Your task to perform on an android device: Go to Amazon Image 0: 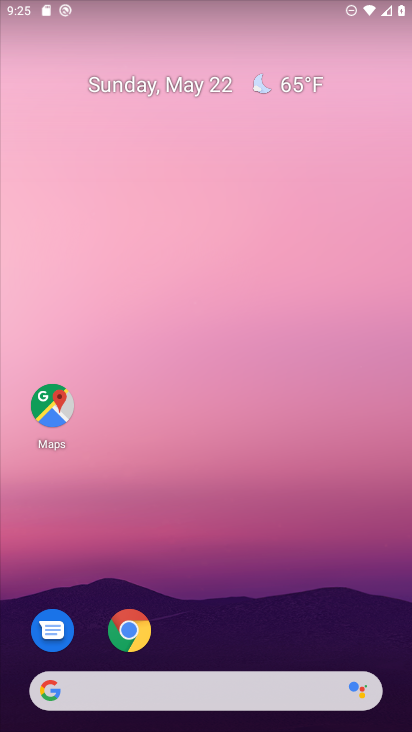
Step 0: press home button
Your task to perform on an android device: Go to Amazon Image 1: 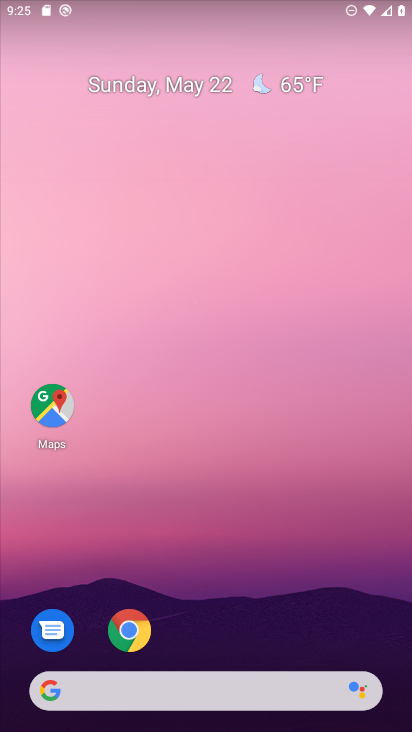
Step 1: click (133, 632)
Your task to perform on an android device: Go to Amazon Image 2: 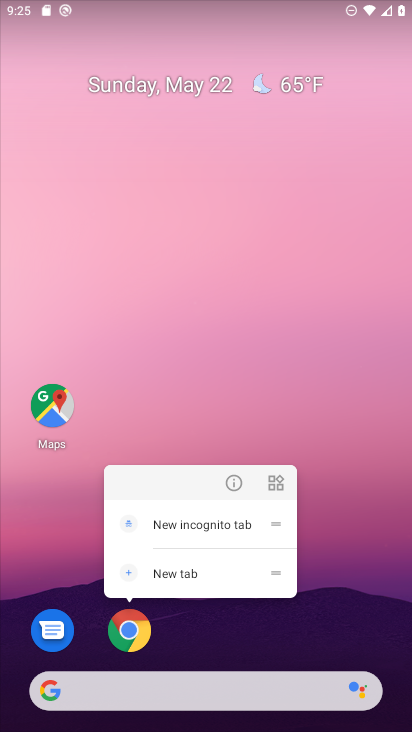
Step 2: click (131, 632)
Your task to perform on an android device: Go to Amazon Image 3: 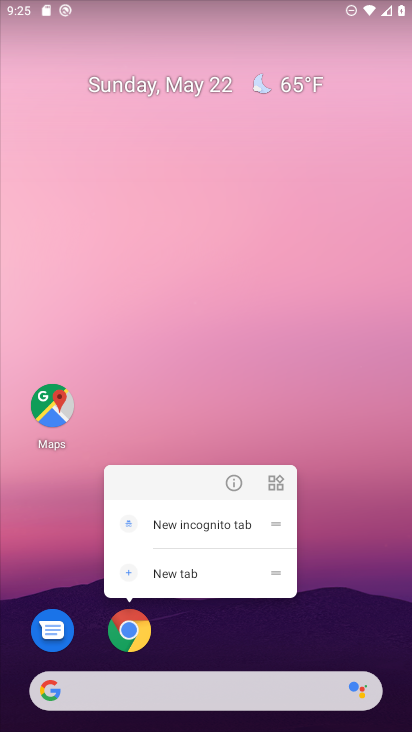
Step 3: click (131, 638)
Your task to perform on an android device: Go to Amazon Image 4: 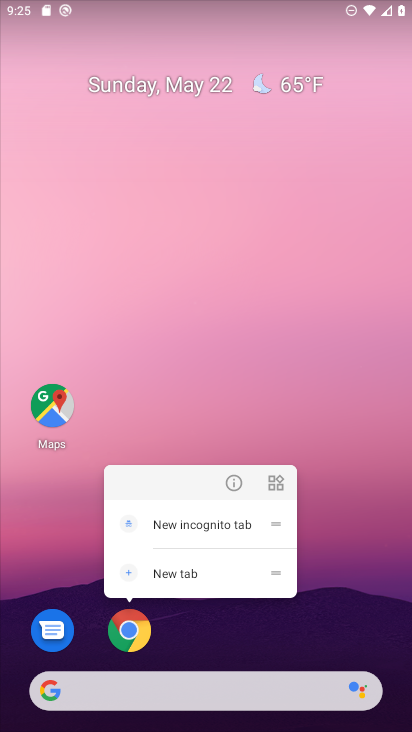
Step 4: click (125, 634)
Your task to perform on an android device: Go to Amazon Image 5: 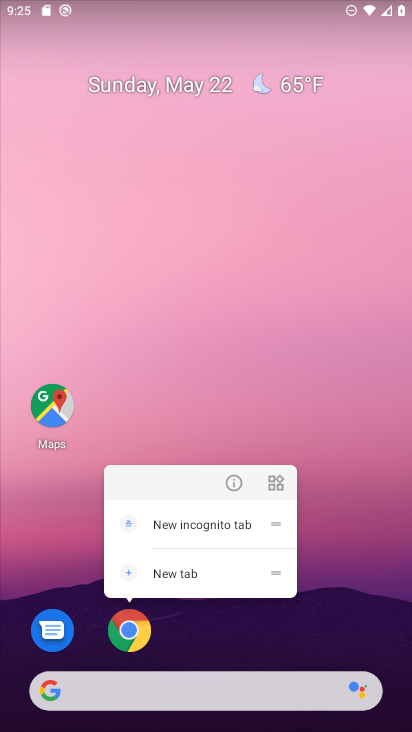
Step 5: click (127, 642)
Your task to perform on an android device: Go to Amazon Image 6: 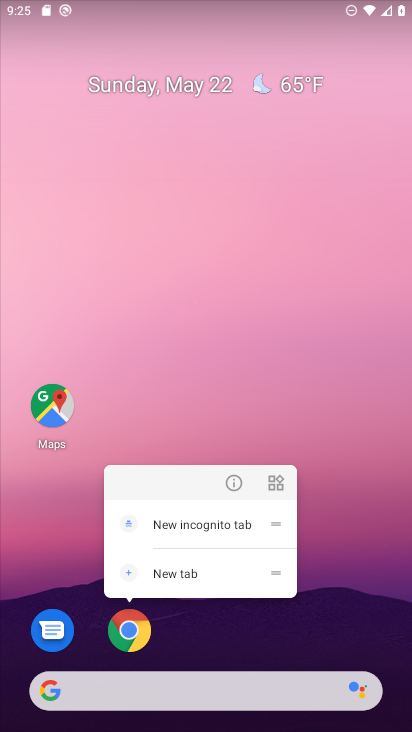
Step 6: click (126, 644)
Your task to perform on an android device: Go to Amazon Image 7: 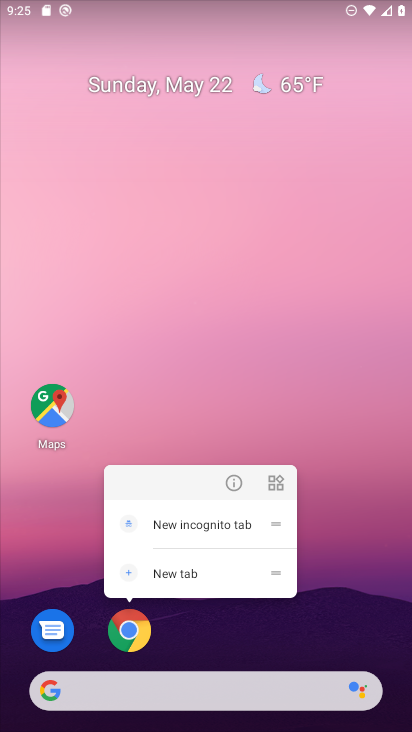
Step 7: click (125, 628)
Your task to perform on an android device: Go to Amazon Image 8: 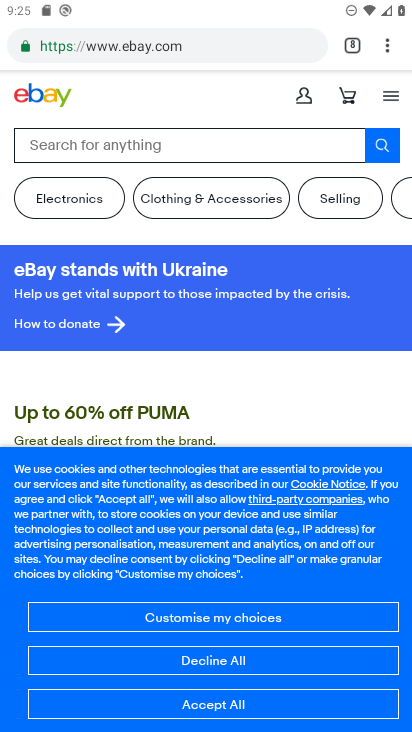
Step 8: drag from (385, 49) to (286, 88)
Your task to perform on an android device: Go to Amazon Image 9: 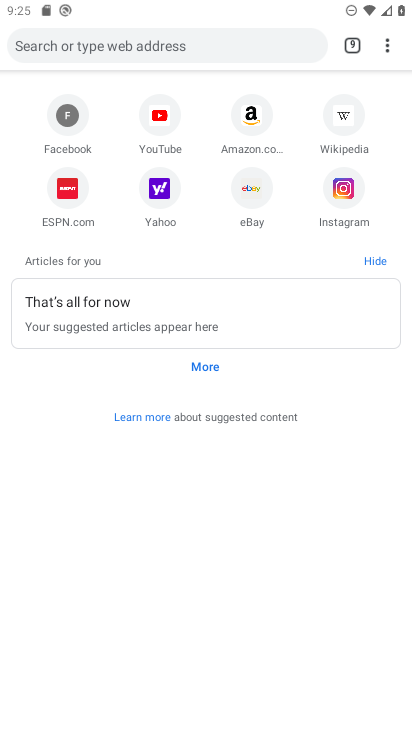
Step 9: click (247, 117)
Your task to perform on an android device: Go to Amazon Image 10: 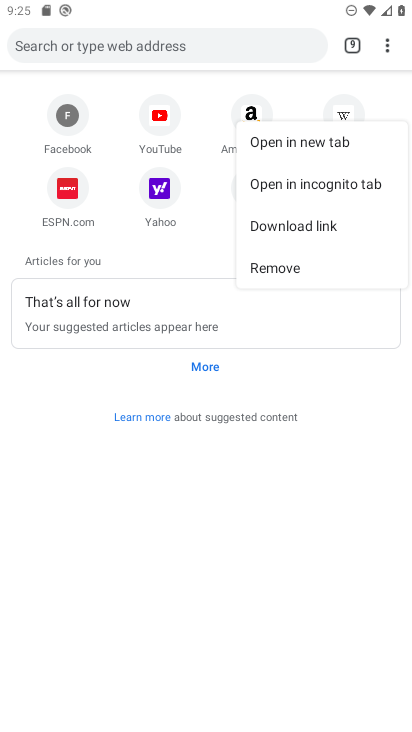
Step 10: click (247, 109)
Your task to perform on an android device: Go to Amazon Image 11: 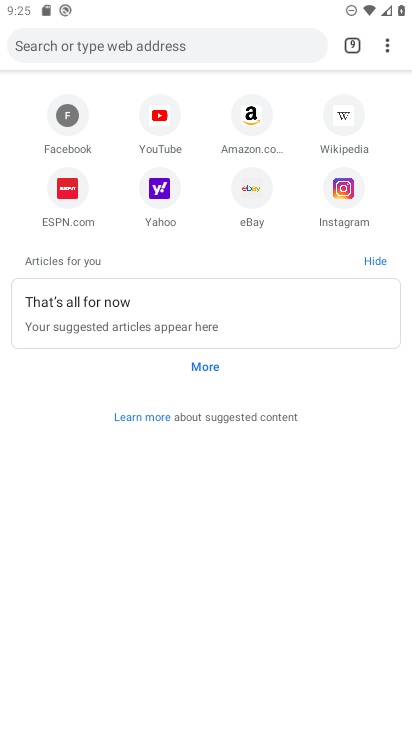
Step 11: click (253, 122)
Your task to perform on an android device: Go to Amazon Image 12: 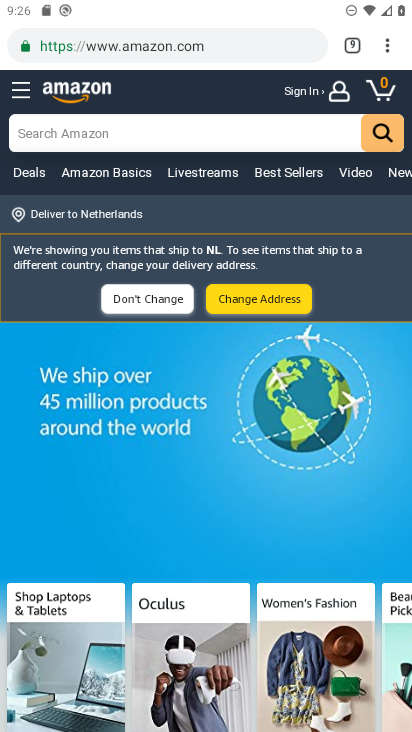
Step 12: task complete